Your task to perform on an android device: turn on location history Image 0: 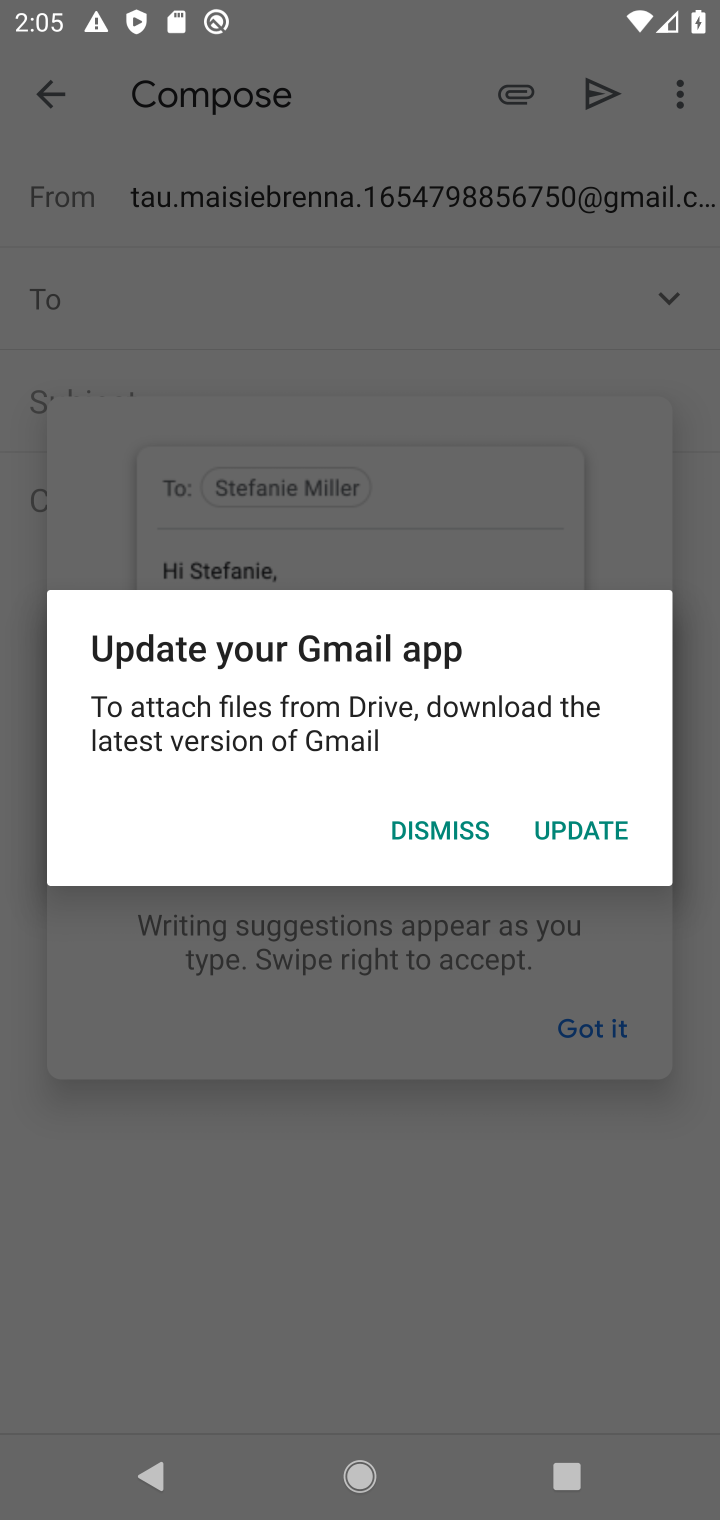
Step 0: press home button
Your task to perform on an android device: turn on location history Image 1: 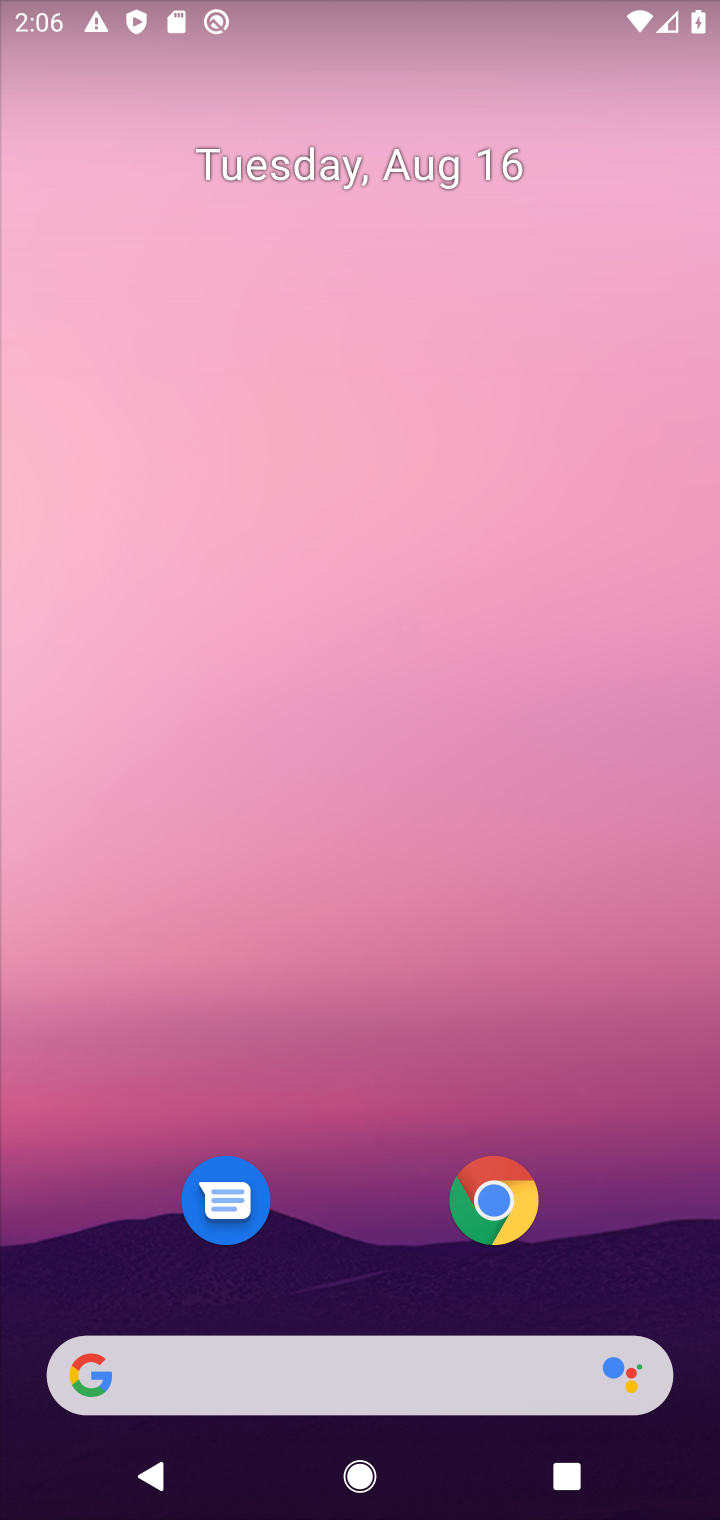
Step 1: drag from (185, 1270) to (494, 342)
Your task to perform on an android device: turn on location history Image 2: 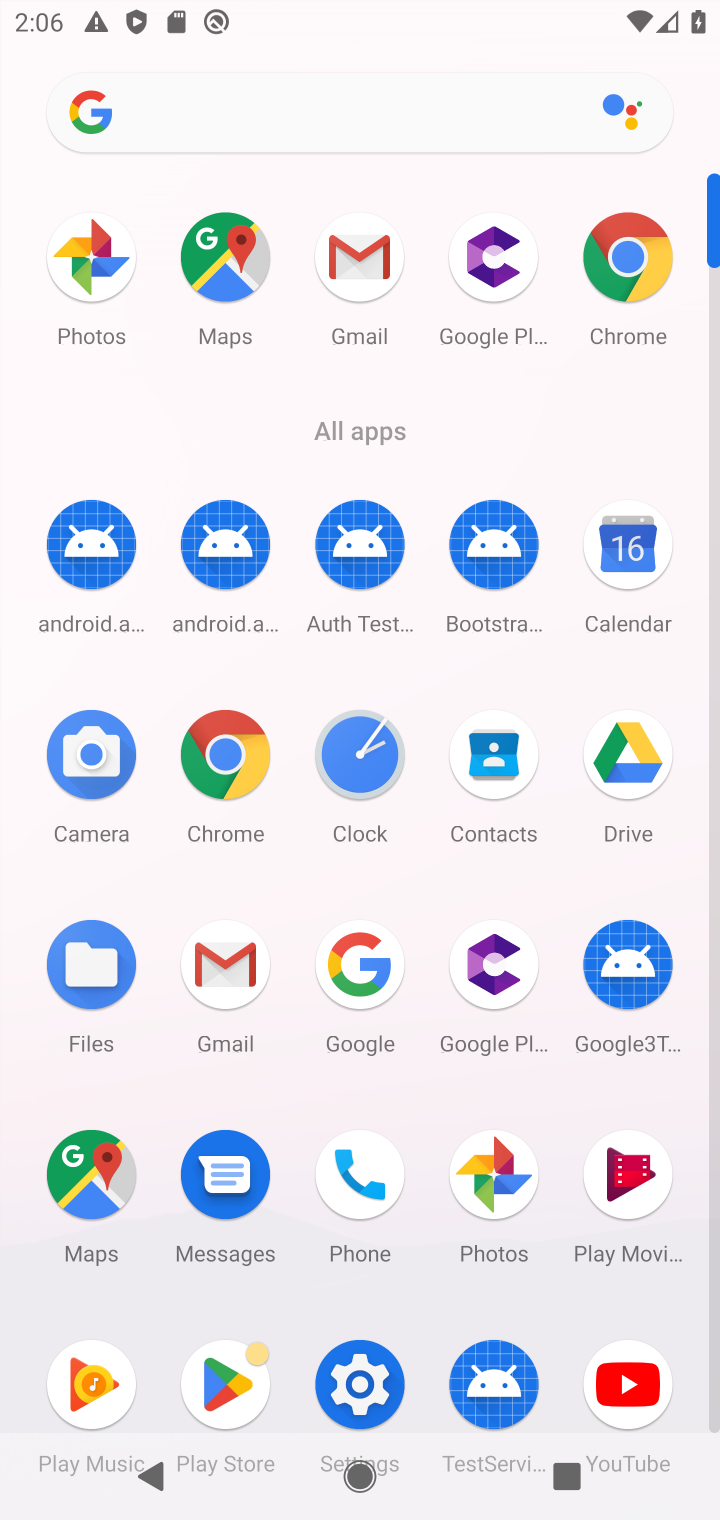
Step 2: click (363, 1385)
Your task to perform on an android device: turn on location history Image 3: 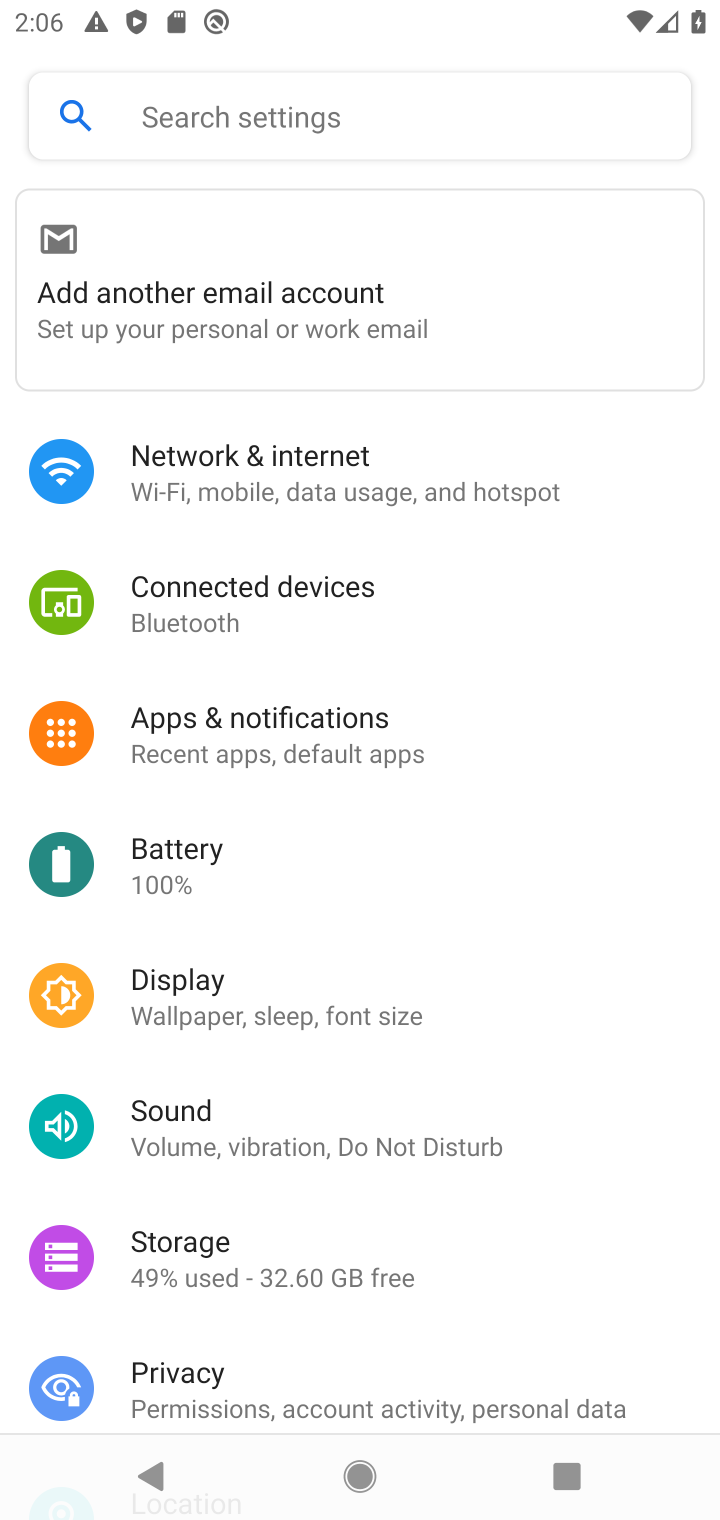
Step 3: drag from (502, 1316) to (427, 270)
Your task to perform on an android device: turn on location history Image 4: 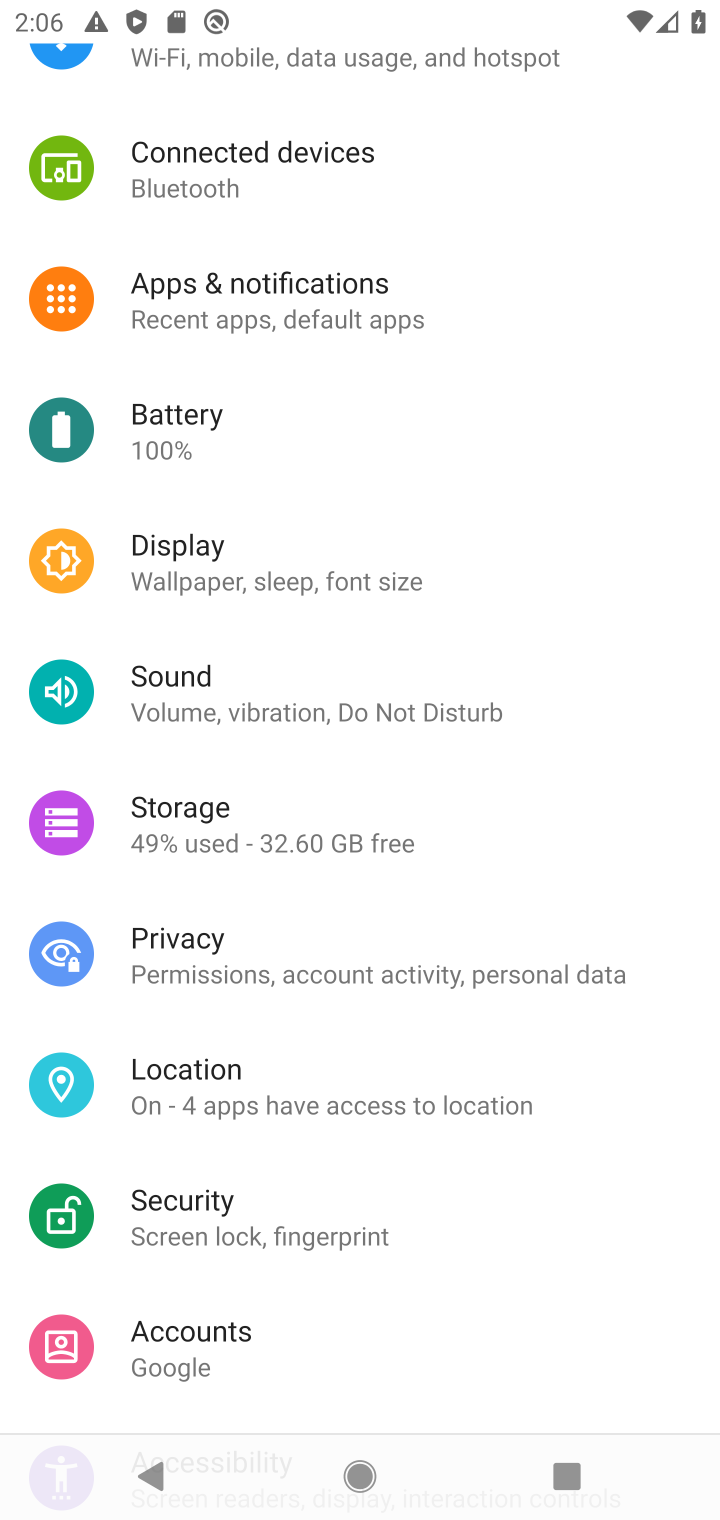
Step 4: click (290, 1103)
Your task to perform on an android device: turn on location history Image 5: 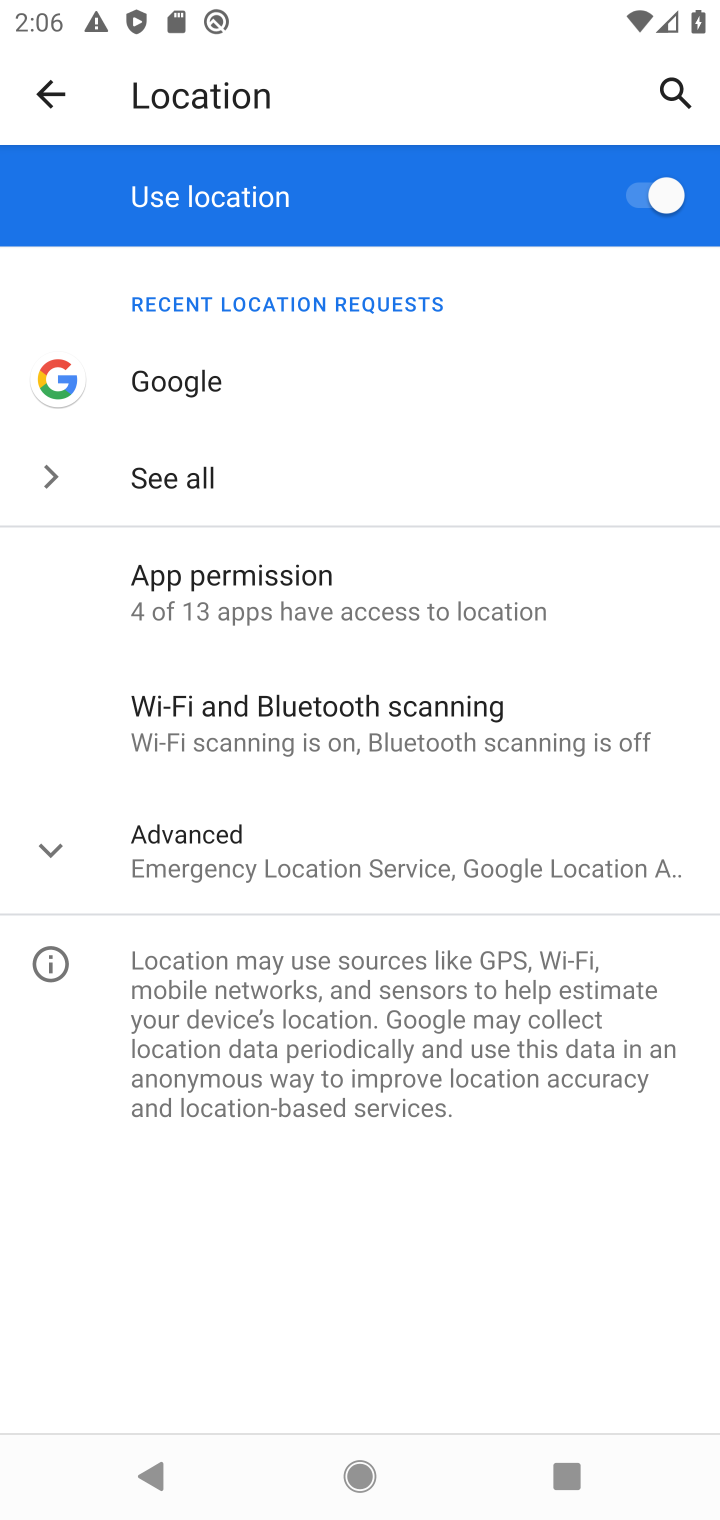
Step 5: task complete